Your task to perform on an android device: add a contact in the contacts app Image 0: 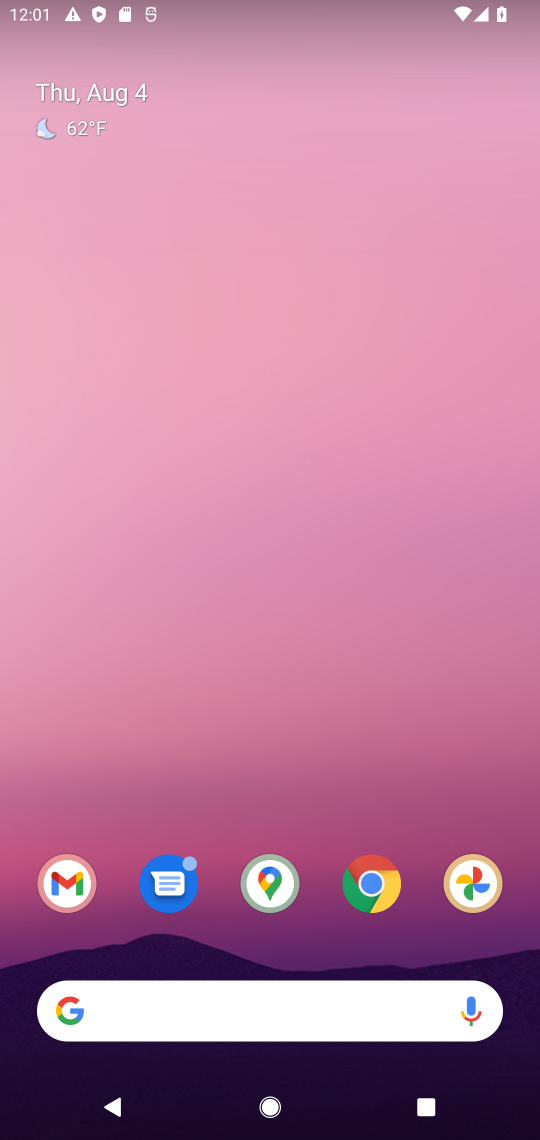
Step 0: drag from (290, 900) to (295, 436)
Your task to perform on an android device: add a contact in the contacts app Image 1: 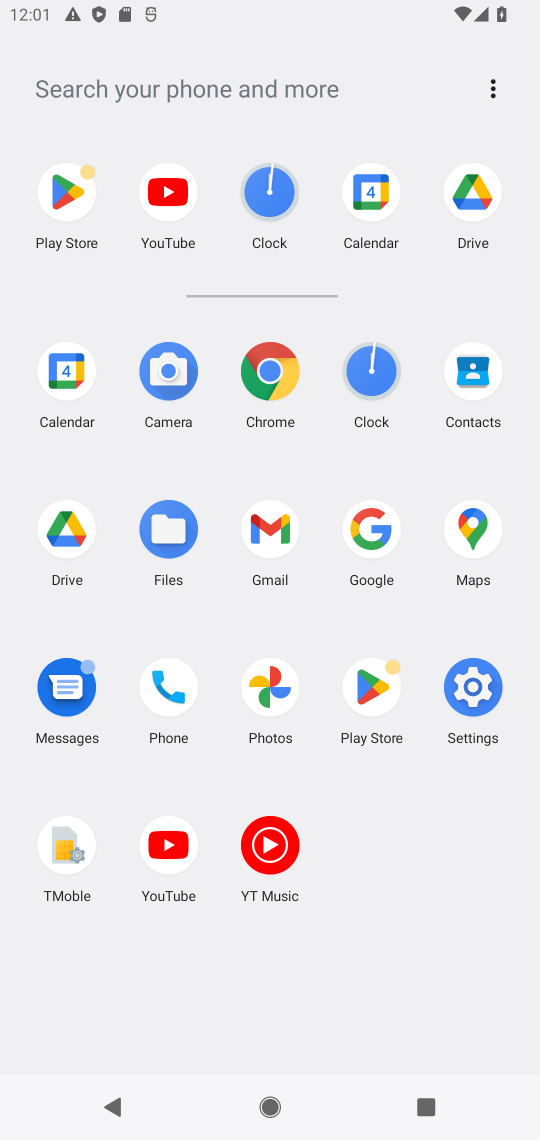
Step 1: click (482, 376)
Your task to perform on an android device: add a contact in the contacts app Image 2: 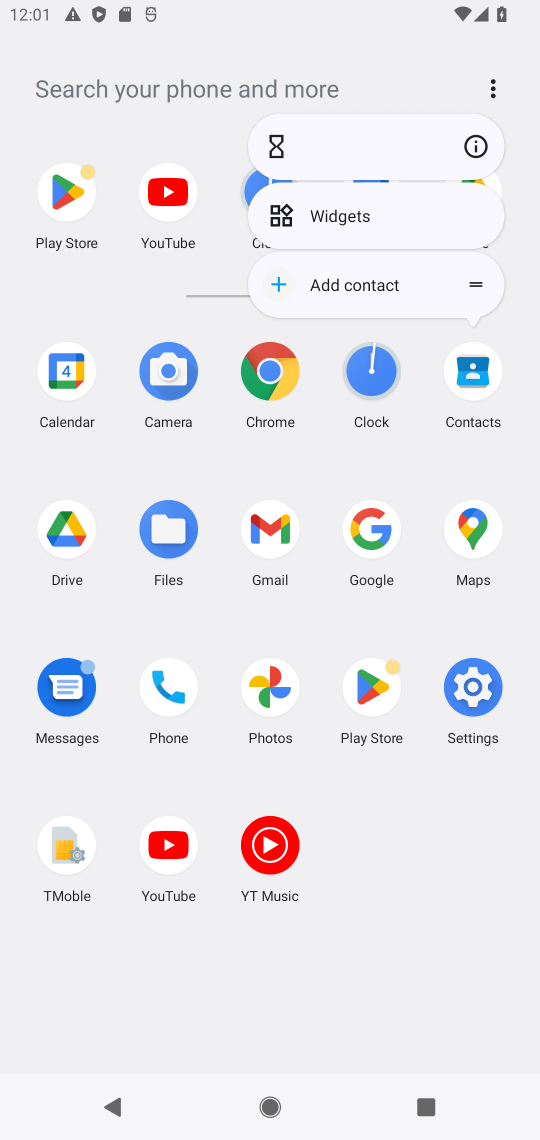
Step 2: click (481, 150)
Your task to perform on an android device: add a contact in the contacts app Image 3: 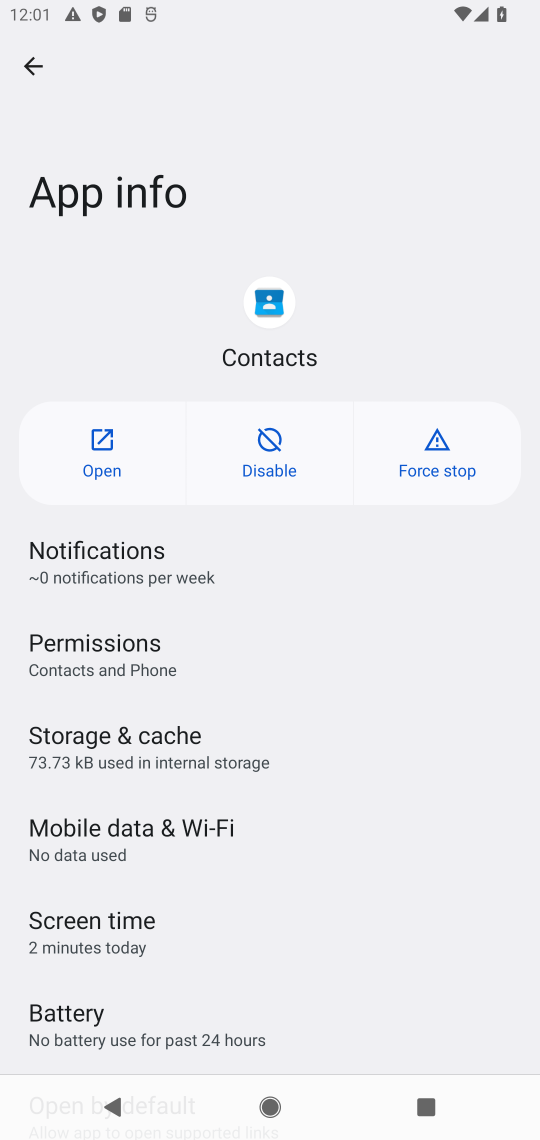
Step 3: click (97, 451)
Your task to perform on an android device: add a contact in the contacts app Image 4: 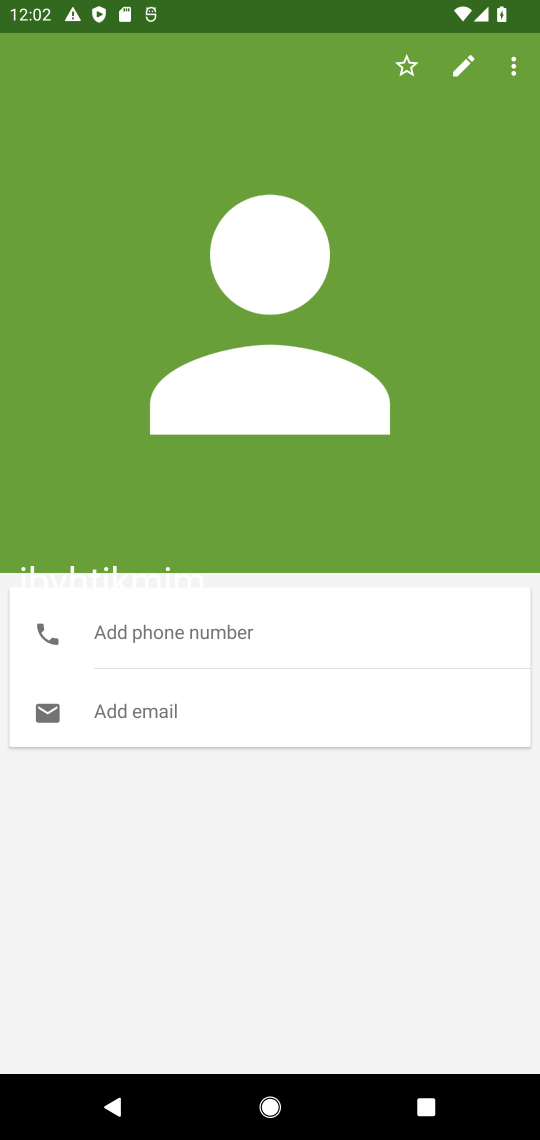
Step 4: press back button
Your task to perform on an android device: add a contact in the contacts app Image 5: 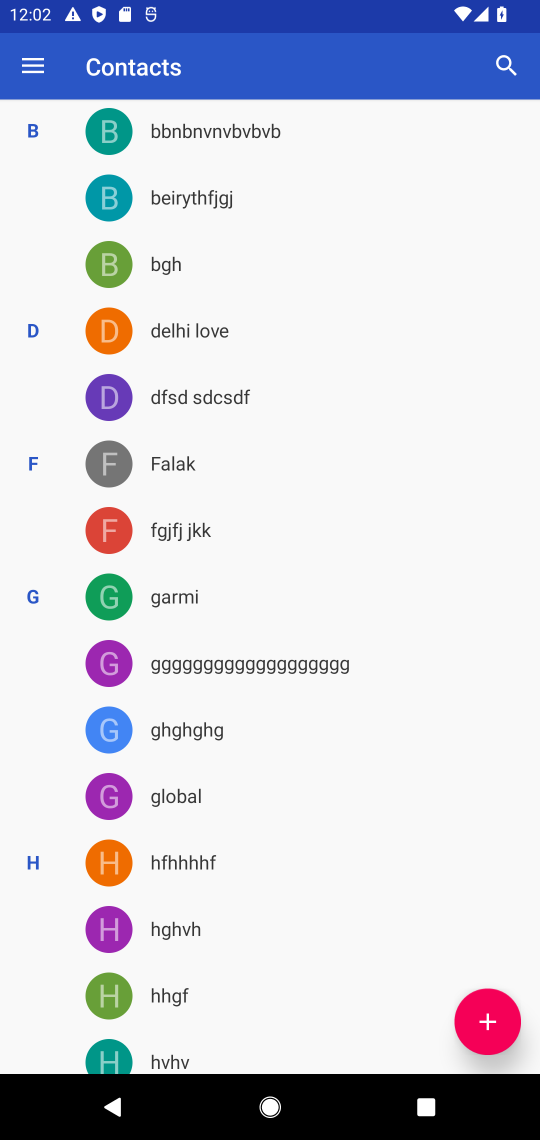
Step 5: click (465, 1007)
Your task to perform on an android device: add a contact in the contacts app Image 6: 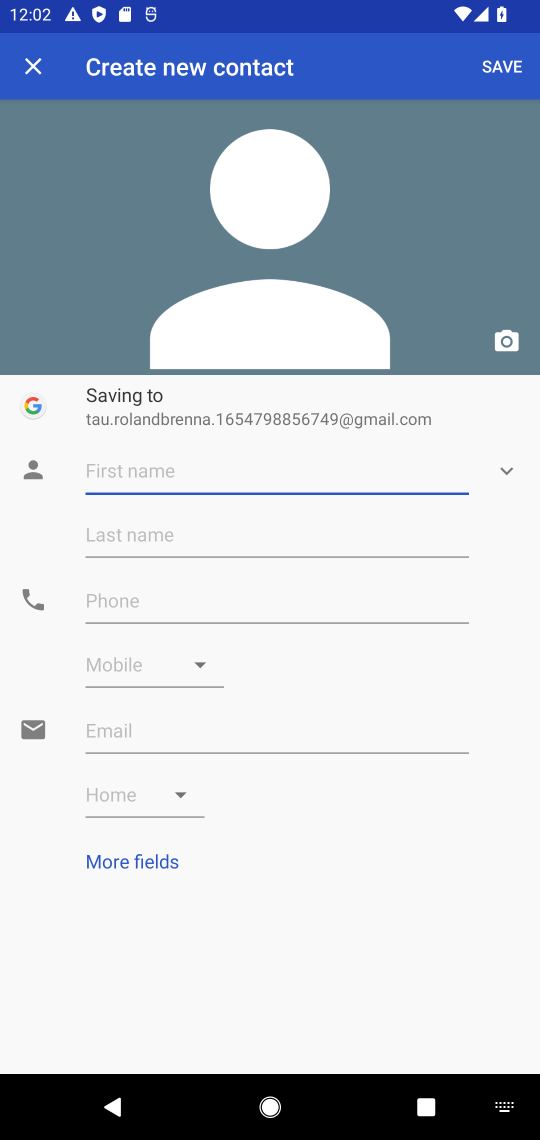
Step 6: click (301, 464)
Your task to perform on an android device: add a contact in the contacts app Image 7: 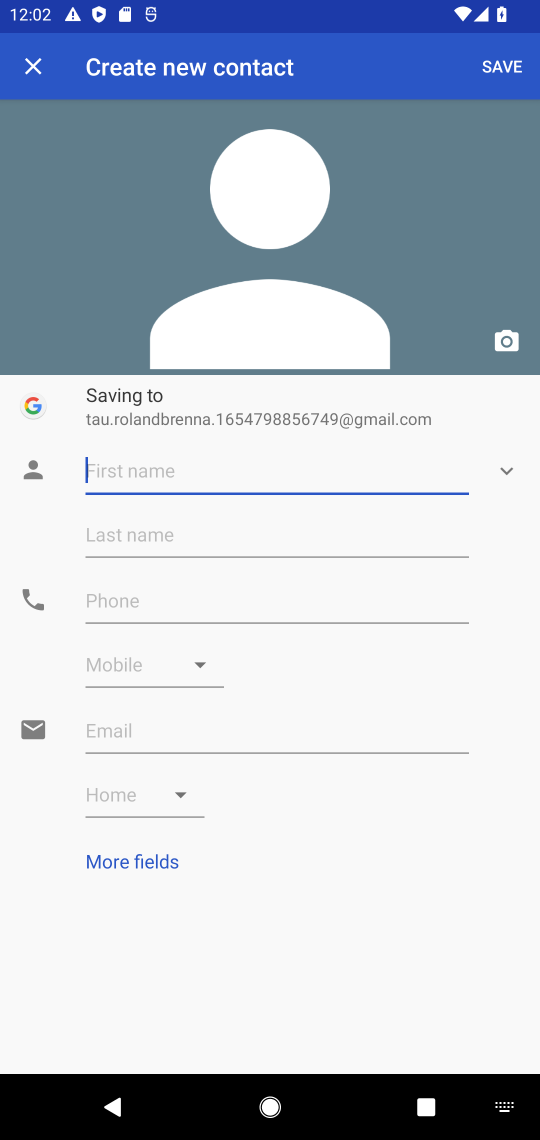
Step 7: type "ccc"
Your task to perform on an android device: add a contact in the contacts app Image 8: 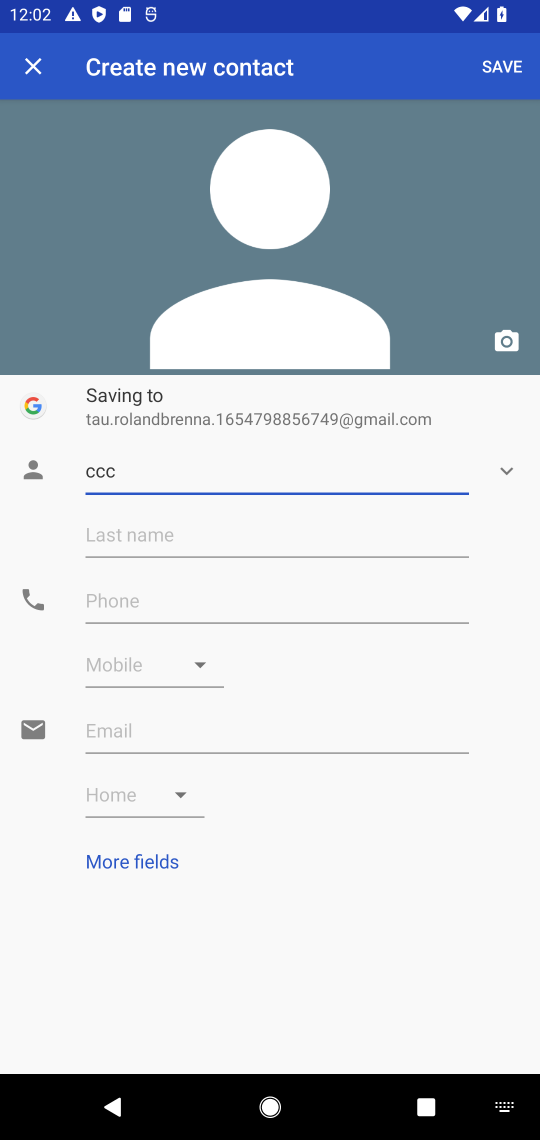
Step 8: click (489, 61)
Your task to perform on an android device: add a contact in the contacts app Image 9: 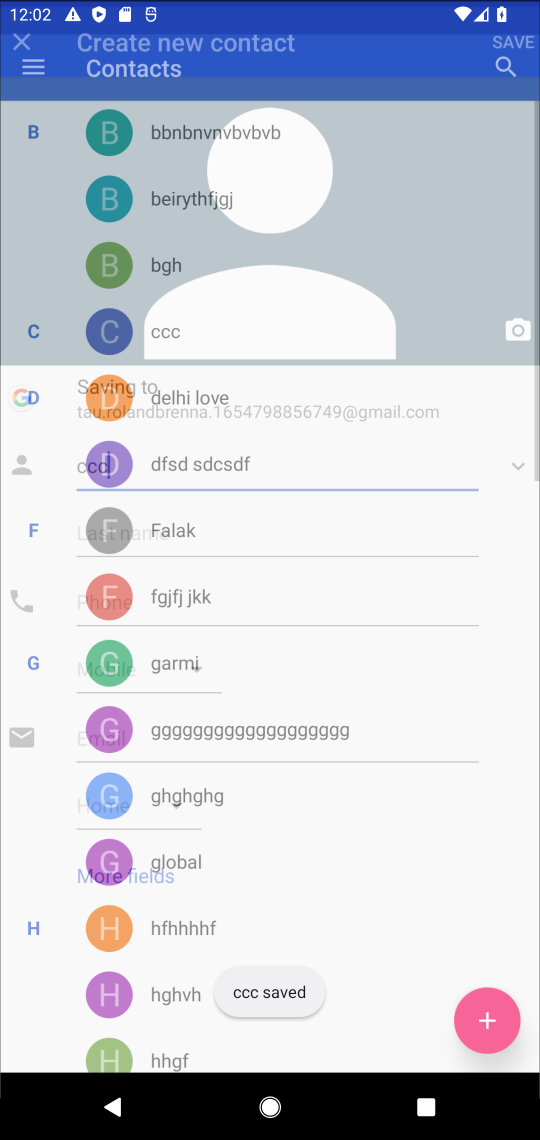
Step 9: task complete